Your task to perform on an android device: Go to privacy settings Image 0: 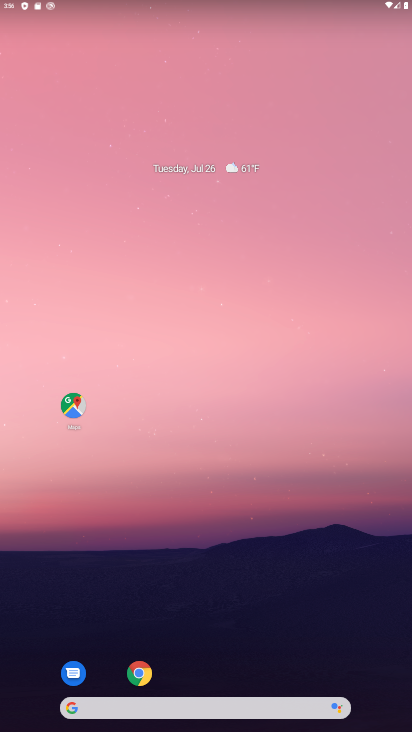
Step 0: drag from (223, 669) to (259, 40)
Your task to perform on an android device: Go to privacy settings Image 1: 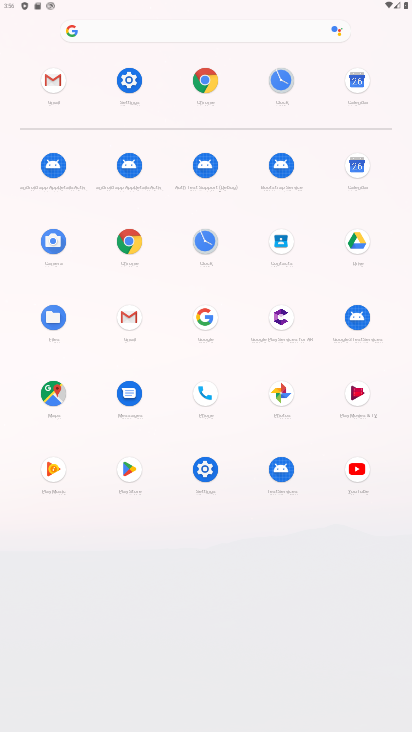
Step 1: click (202, 464)
Your task to perform on an android device: Go to privacy settings Image 2: 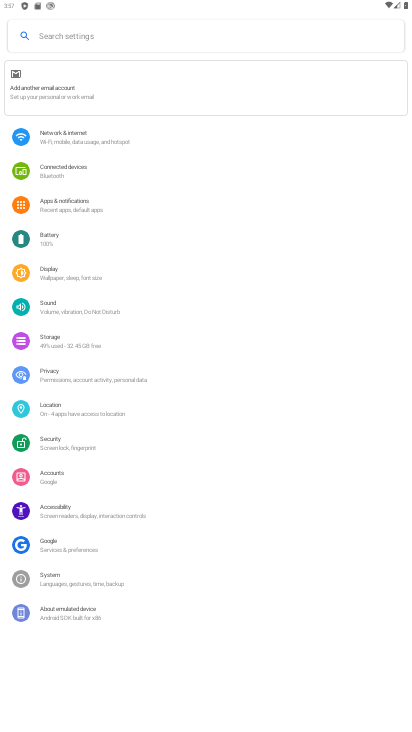
Step 2: click (66, 370)
Your task to perform on an android device: Go to privacy settings Image 3: 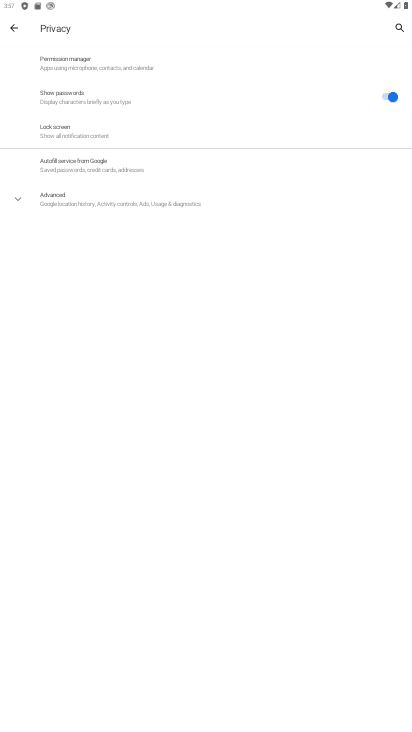
Step 3: click (16, 195)
Your task to perform on an android device: Go to privacy settings Image 4: 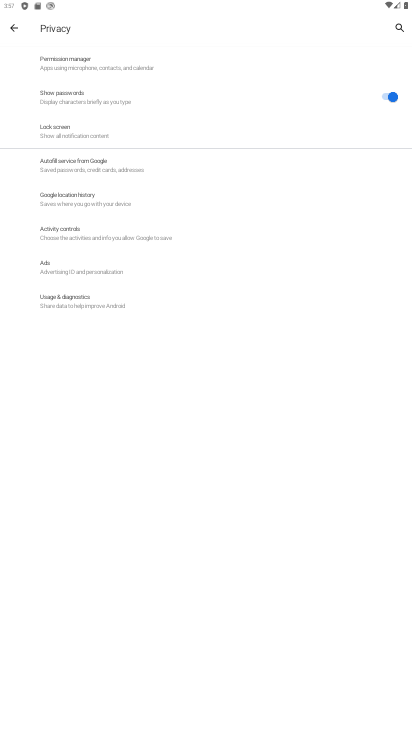
Step 4: task complete